Your task to perform on an android device: toggle priority inbox in the gmail app Image 0: 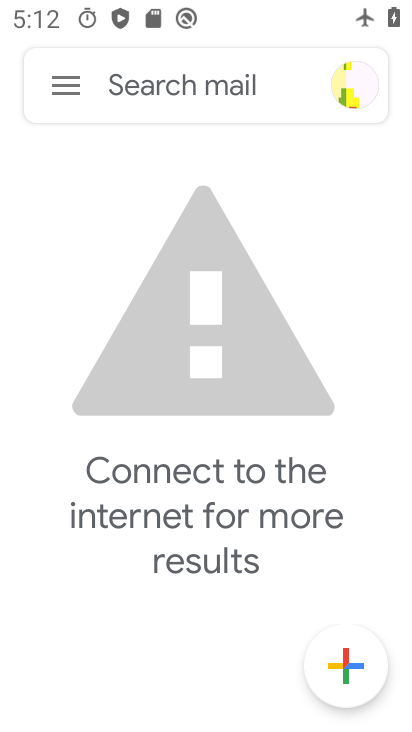
Step 0: task impossible